Your task to perform on an android device: Search for Italian restaurants on Maps Image 0: 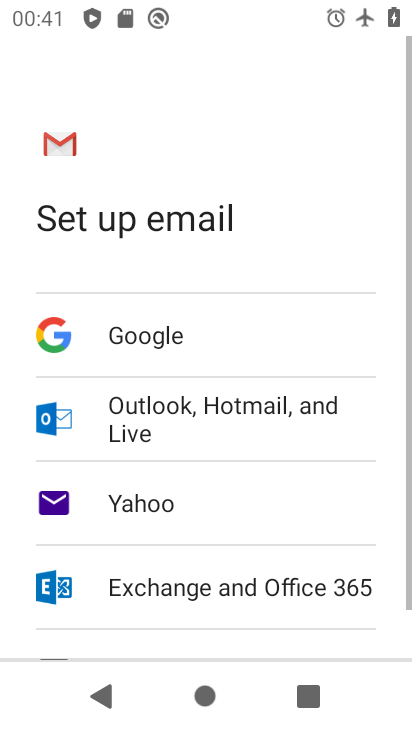
Step 0: press home button
Your task to perform on an android device: Search for Italian restaurants on Maps Image 1: 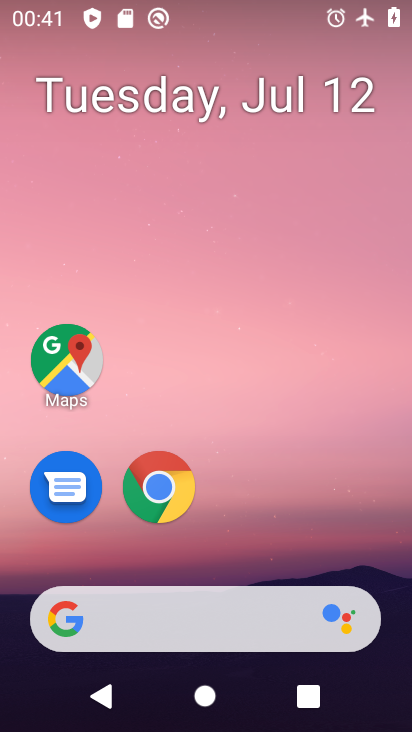
Step 1: drag from (356, 523) to (331, 140)
Your task to perform on an android device: Search for Italian restaurants on Maps Image 2: 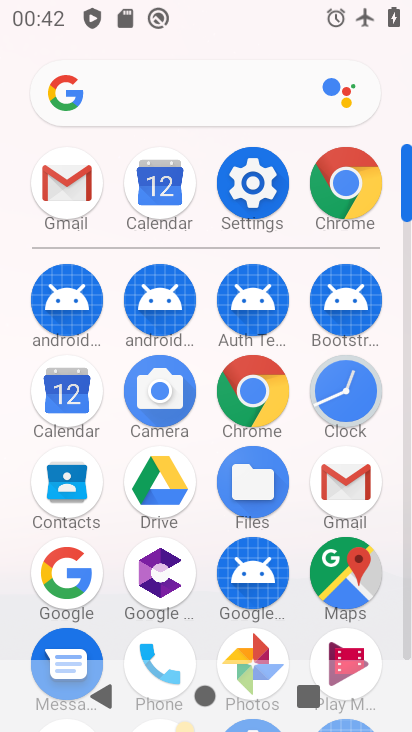
Step 2: click (369, 576)
Your task to perform on an android device: Search for Italian restaurants on Maps Image 3: 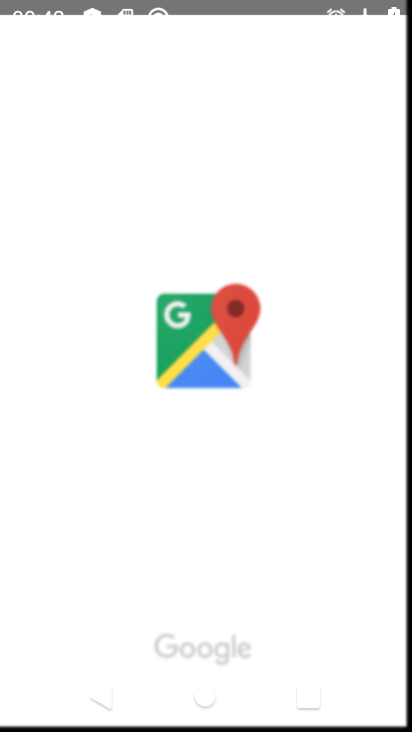
Step 3: task complete